Your task to perform on an android device: Find coffee shops on Maps Image 0: 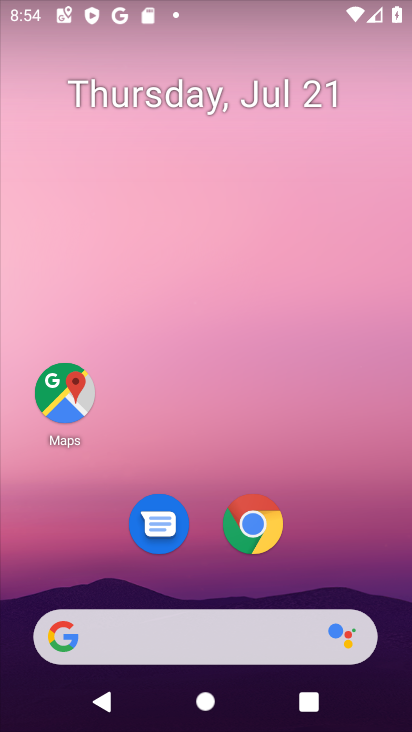
Step 0: press home button
Your task to perform on an android device: Find coffee shops on Maps Image 1: 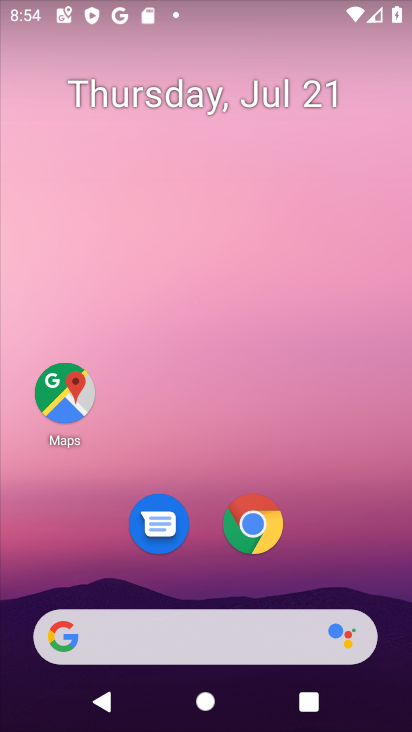
Step 1: click (64, 403)
Your task to perform on an android device: Find coffee shops on Maps Image 2: 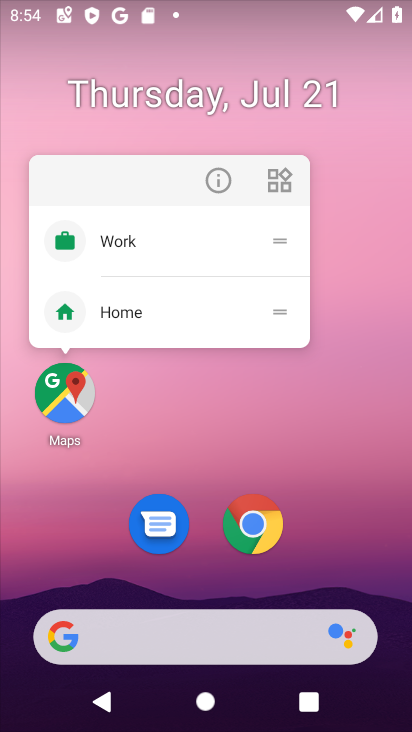
Step 2: click (64, 386)
Your task to perform on an android device: Find coffee shops on Maps Image 3: 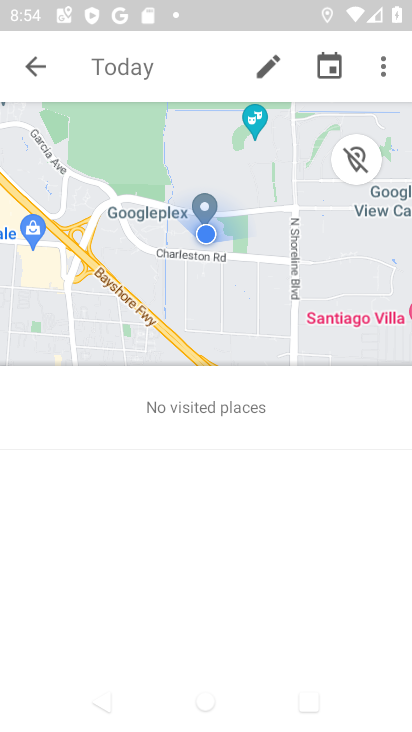
Step 3: click (42, 65)
Your task to perform on an android device: Find coffee shops on Maps Image 4: 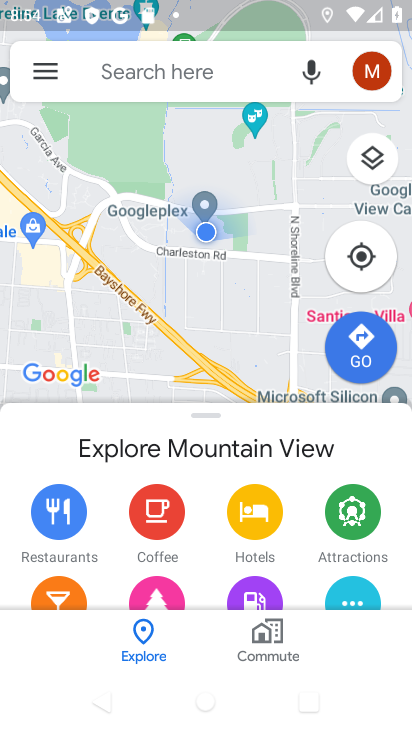
Step 4: click (129, 69)
Your task to perform on an android device: Find coffee shops on Maps Image 5: 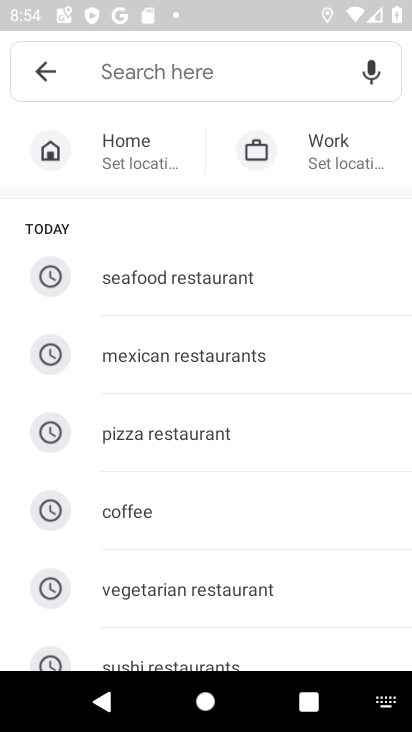
Step 5: click (139, 511)
Your task to perform on an android device: Find coffee shops on Maps Image 6: 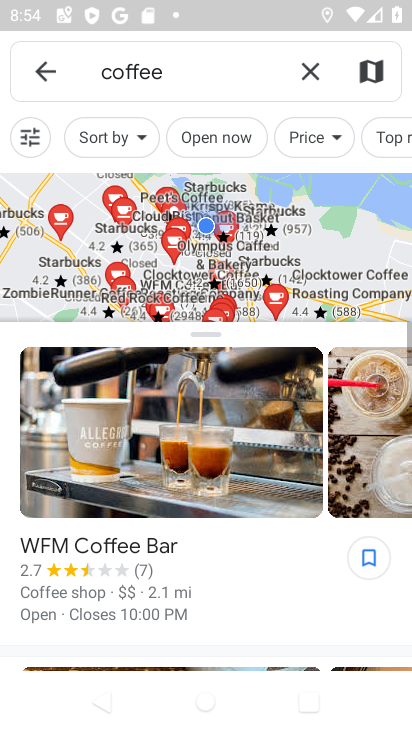
Step 6: task complete